Your task to perform on an android device: Search for pizza restaurants on Maps Image 0: 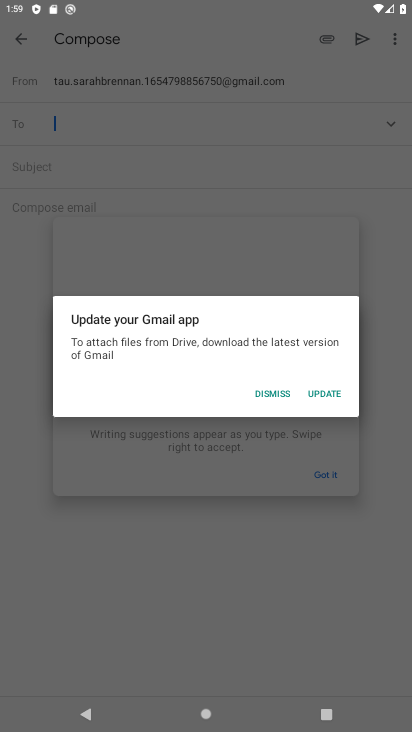
Step 0: press home button
Your task to perform on an android device: Search for pizza restaurants on Maps Image 1: 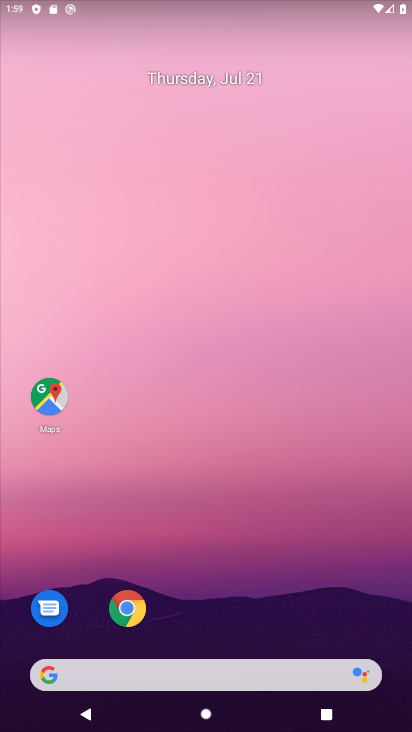
Step 1: drag from (253, 713) to (250, 219)
Your task to perform on an android device: Search for pizza restaurants on Maps Image 2: 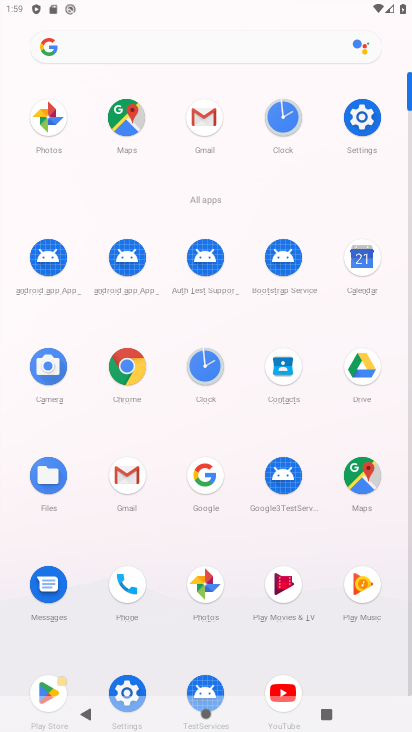
Step 2: click (362, 474)
Your task to perform on an android device: Search for pizza restaurants on Maps Image 3: 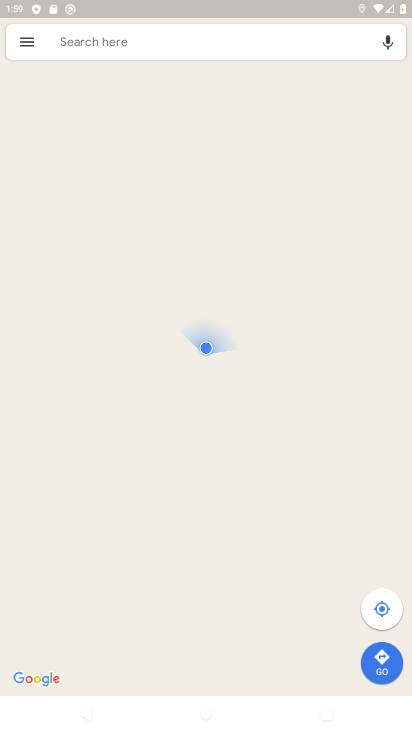
Step 3: click (219, 40)
Your task to perform on an android device: Search for pizza restaurants on Maps Image 4: 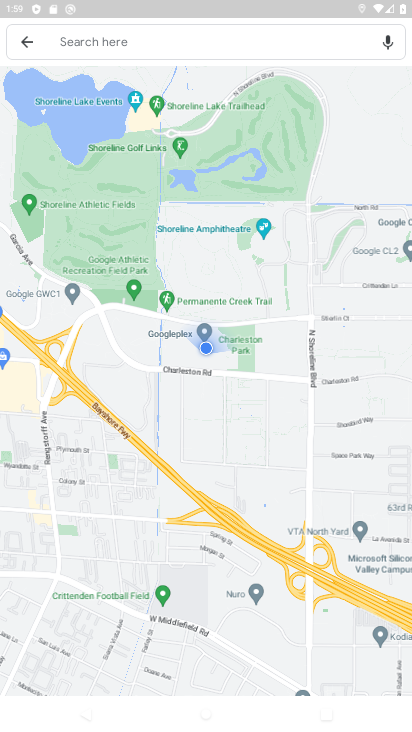
Step 4: click (230, 41)
Your task to perform on an android device: Search for pizza restaurants on Maps Image 5: 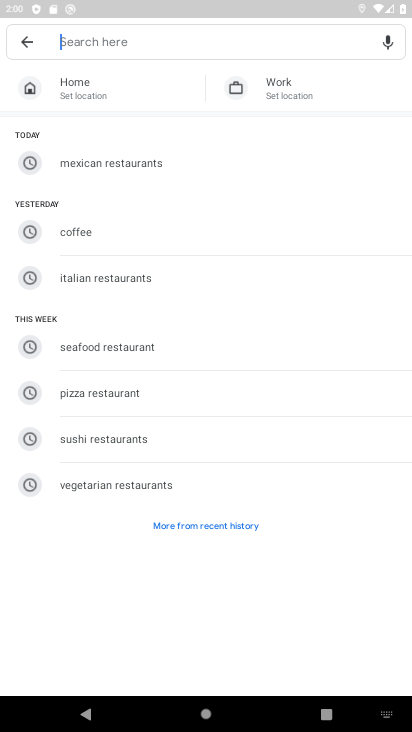
Step 5: type "Pizza restaurants"
Your task to perform on an android device: Search for pizza restaurants on Maps Image 6: 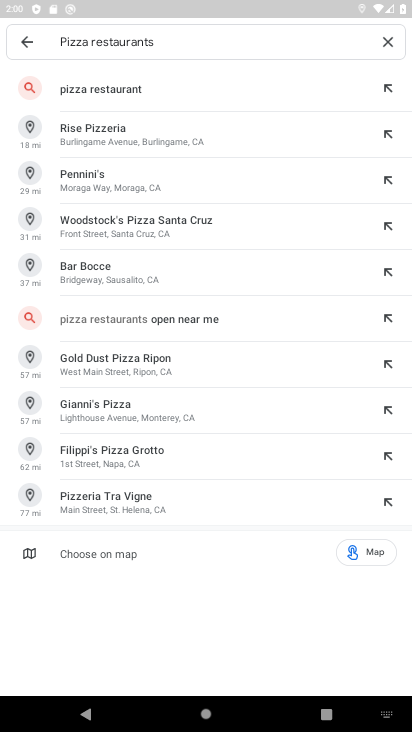
Step 6: click (113, 88)
Your task to perform on an android device: Search for pizza restaurants on Maps Image 7: 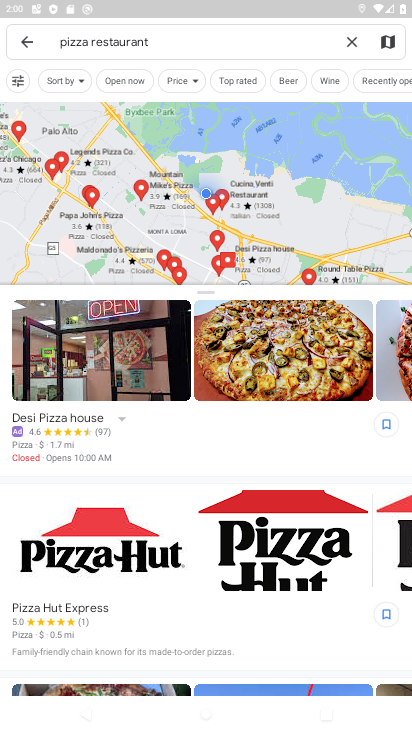
Step 7: task complete